Your task to perform on an android device: Open internet settings Image 0: 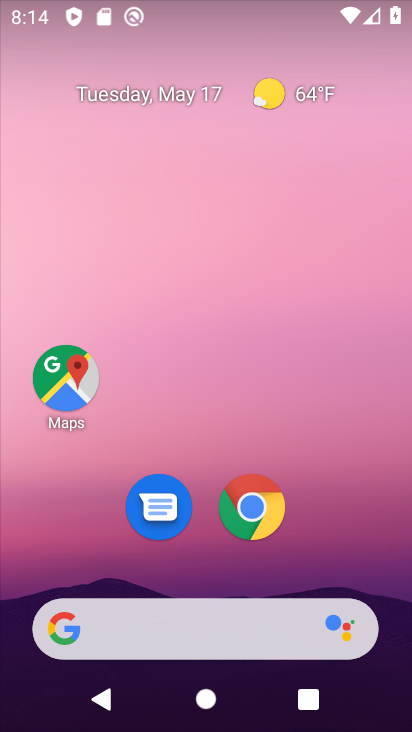
Step 0: drag from (337, 534) to (242, 74)
Your task to perform on an android device: Open internet settings Image 1: 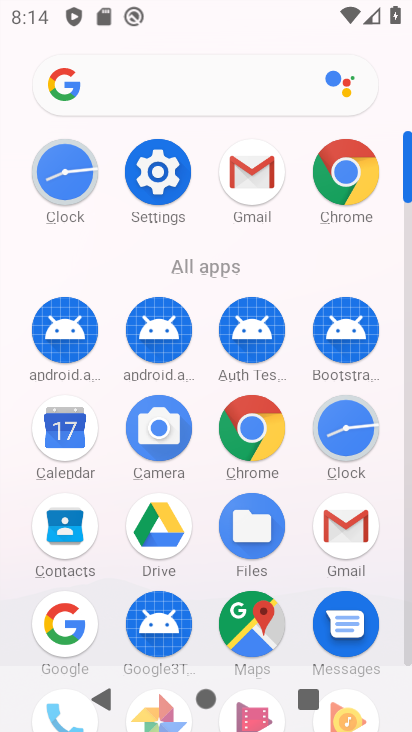
Step 1: click (159, 171)
Your task to perform on an android device: Open internet settings Image 2: 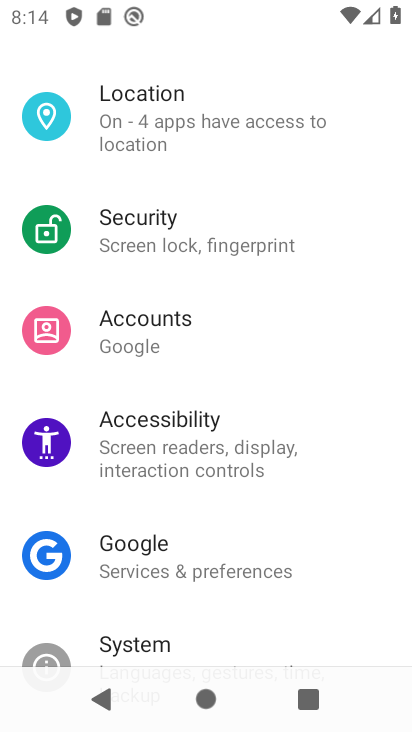
Step 2: drag from (219, 203) to (224, 309)
Your task to perform on an android device: Open internet settings Image 3: 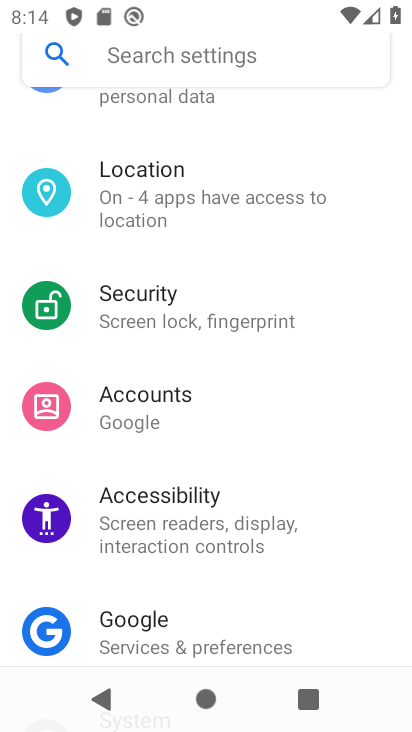
Step 3: drag from (203, 162) to (253, 355)
Your task to perform on an android device: Open internet settings Image 4: 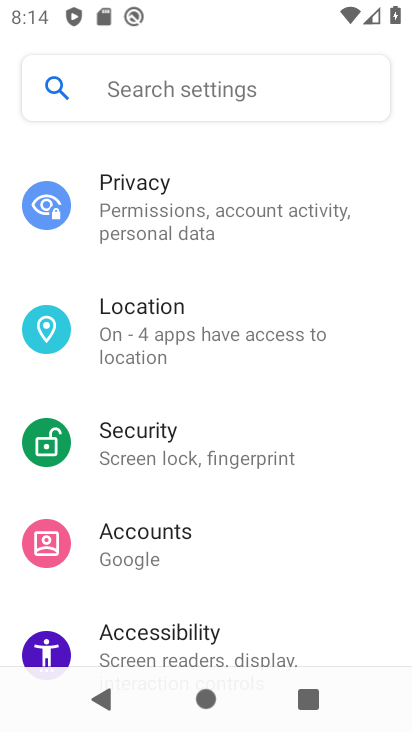
Step 4: drag from (215, 166) to (241, 374)
Your task to perform on an android device: Open internet settings Image 5: 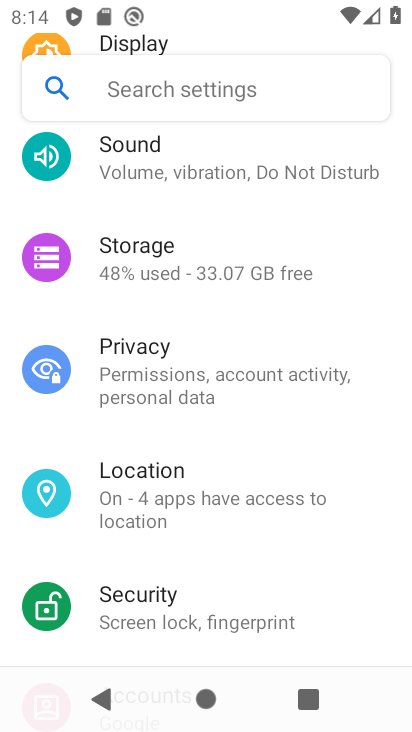
Step 5: drag from (220, 227) to (213, 349)
Your task to perform on an android device: Open internet settings Image 6: 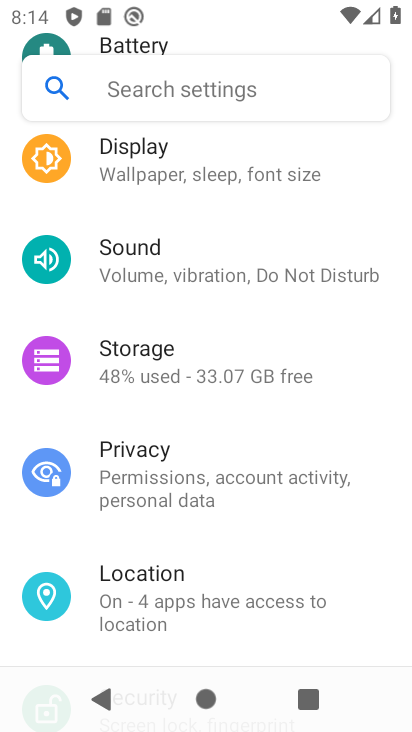
Step 6: drag from (186, 235) to (188, 348)
Your task to perform on an android device: Open internet settings Image 7: 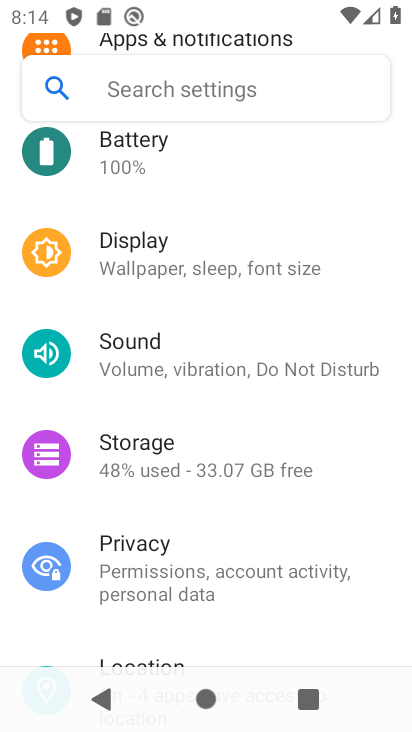
Step 7: drag from (207, 218) to (239, 362)
Your task to perform on an android device: Open internet settings Image 8: 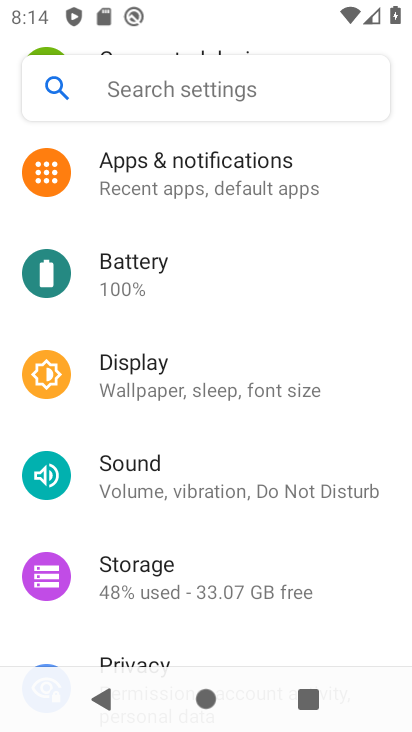
Step 8: drag from (183, 216) to (207, 315)
Your task to perform on an android device: Open internet settings Image 9: 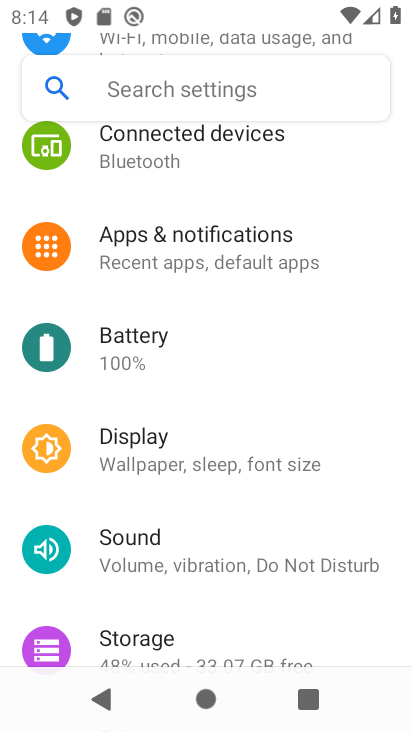
Step 9: drag from (172, 188) to (167, 287)
Your task to perform on an android device: Open internet settings Image 10: 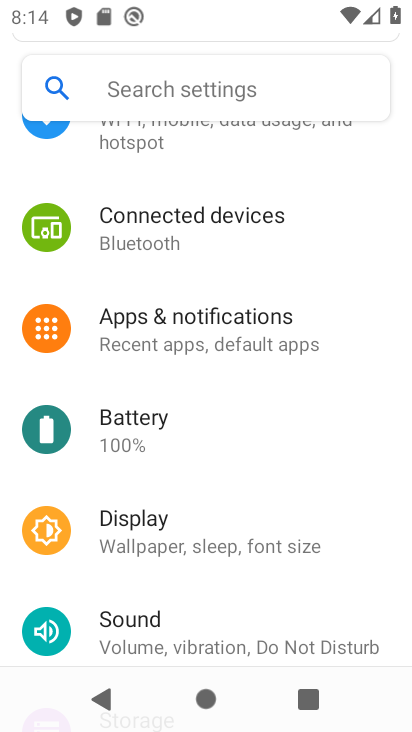
Step 10: drag from (175, 180) to (176, 324)
Your task to perform on an android device: Open internet settings Image 11: 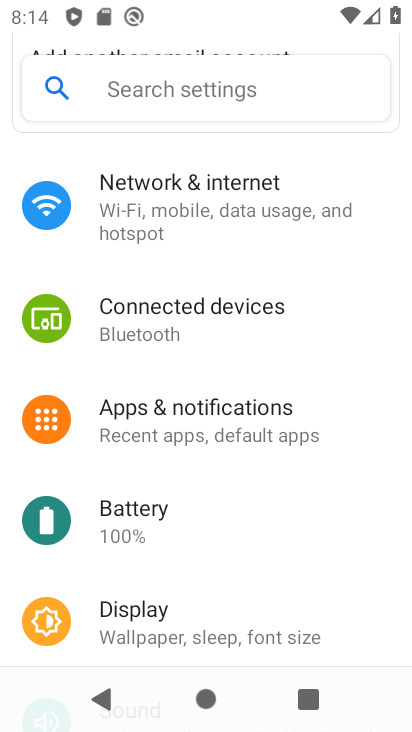
Step 11: click (184, 185)
Your task to perform on an android device: Open internet settings Image 12: 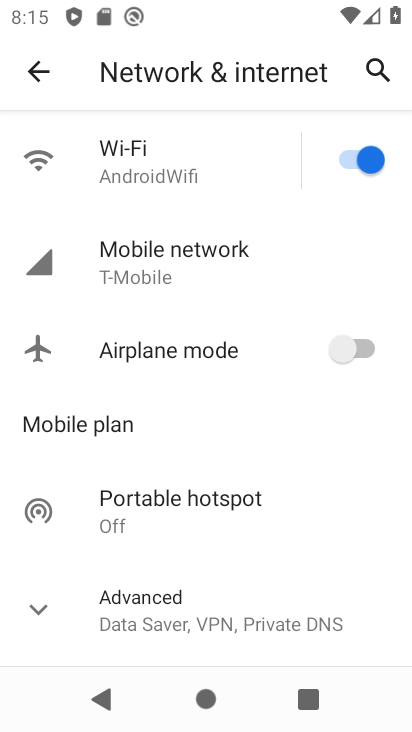
Step 12: click (137, 142)
Your task to perform on an android device: Open internet settings Image 13: 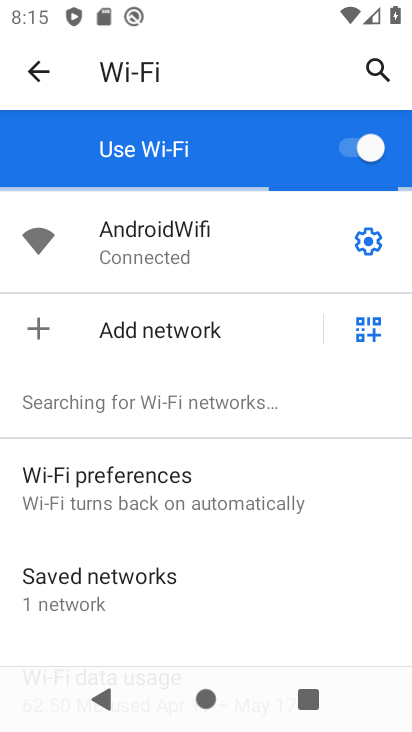
Step 13: task complete